Your task to perform on an android device: set the stopwatch Image 0: 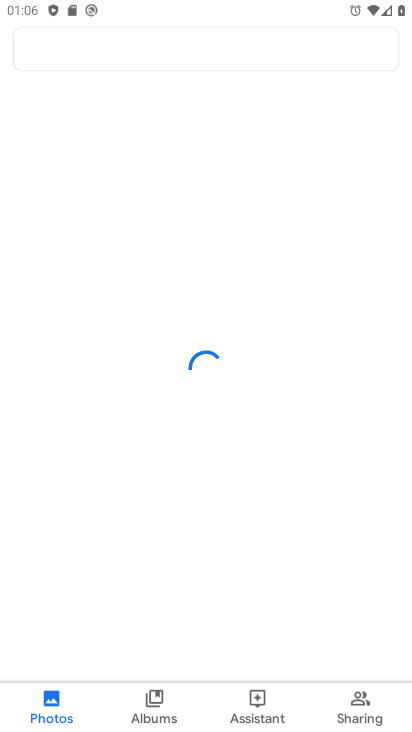
Step 0: press home button
Your task to perform on an android device: set the stopwatch Image 1: 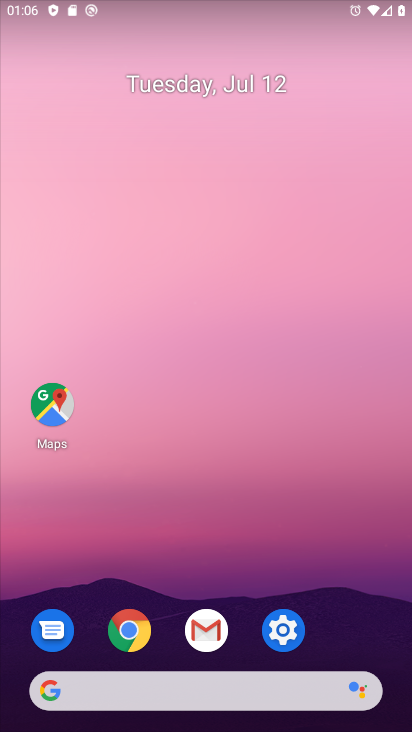
Step 1: drag from (222, 688) to (224, 257)
Your task to perform on an android device: set the stopwatch Image 2: 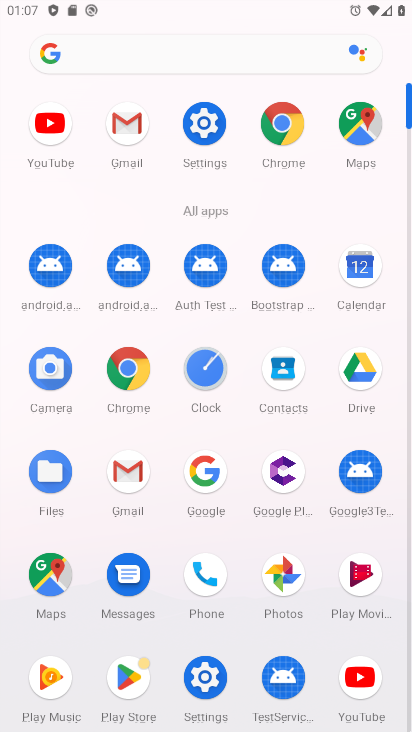
Step 2: click (199, 369)
Your task to perform on an android device: set the stopwatch Image 3: 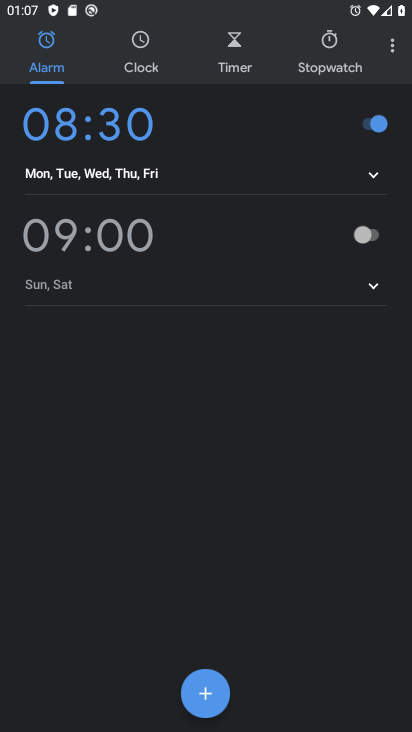
Step 3: click (323, 63)
Your task to perform on an android device: set the stopwatch Image 4: 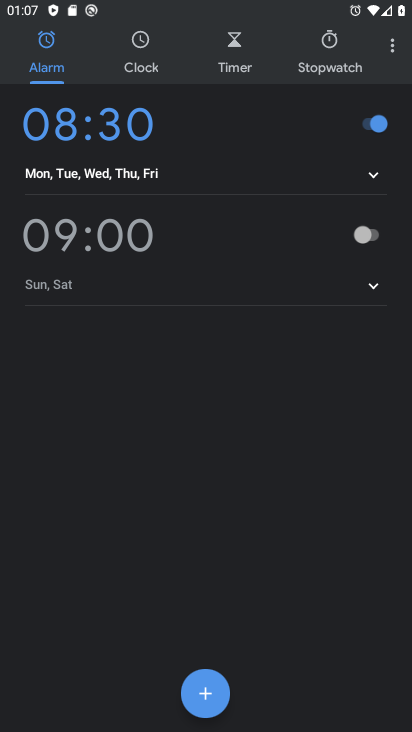
Step 4: click (311, 51)
Your task to perform on an android device: set the stopwatch Image 5: 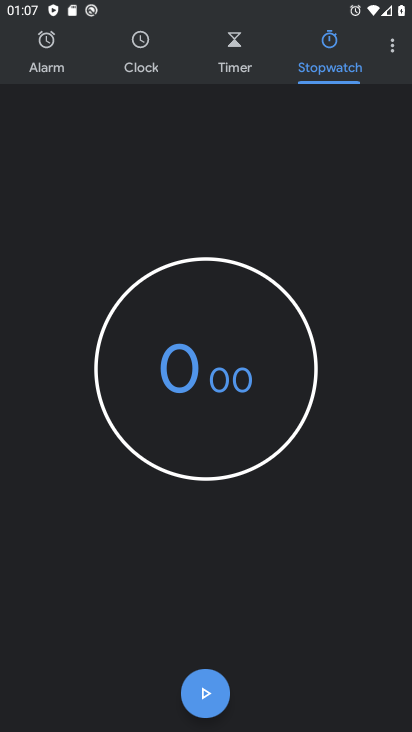
Step 5: click (223, 664)
Your task to perform on an android device: set the stopwatch Image 6: 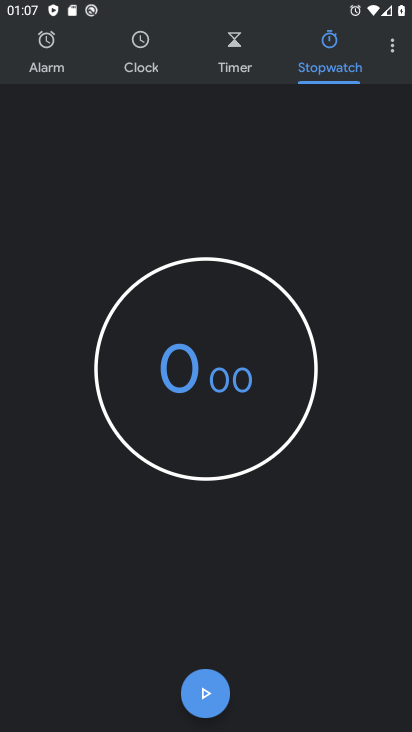
Step 6: click (204, 700)
Your task to perform on an android device: set the stopwatch Image 7: 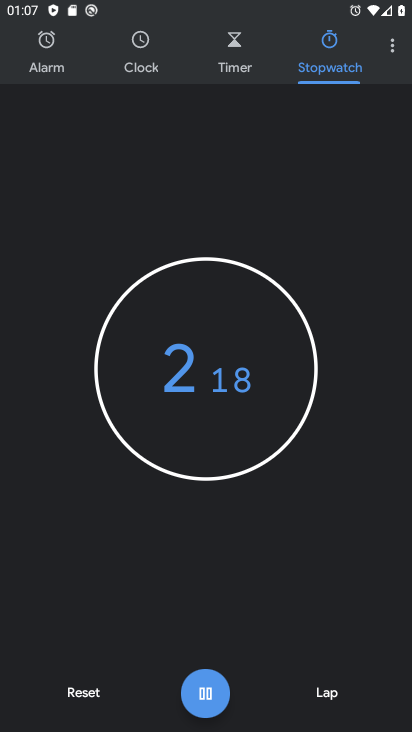
Step 7: click (215, 703)
Your task to perform on an android device: set the stopwatch Image 8: 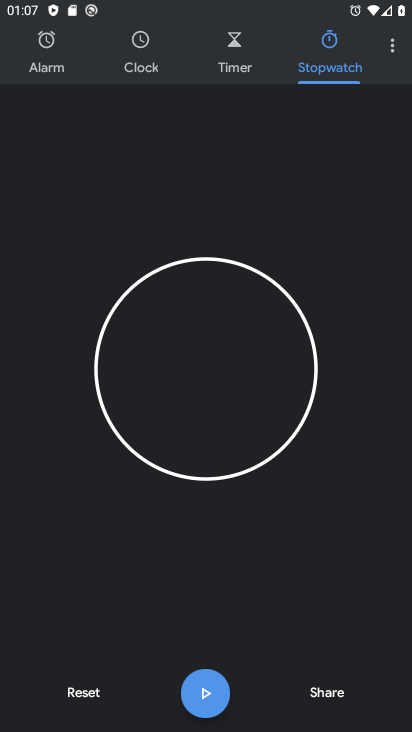
Step 8: task complete